Your task to perform on an android device: turn on wifi Image 0: 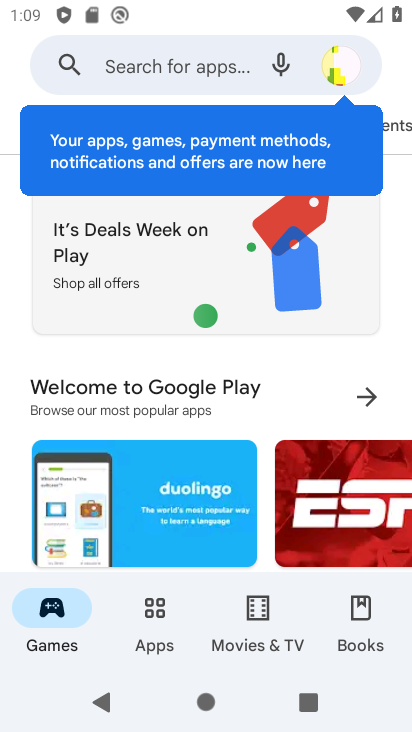
Step 0: press home button
Your task to perform on an android device: turn on wifi Image 1: 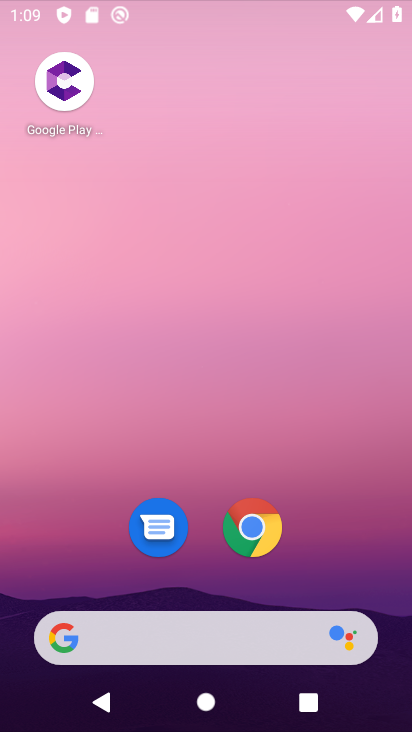
Step 1: drag from (137, 588) to (331, 20)
Your task to perform on an android device: turn on wifi Image 2: 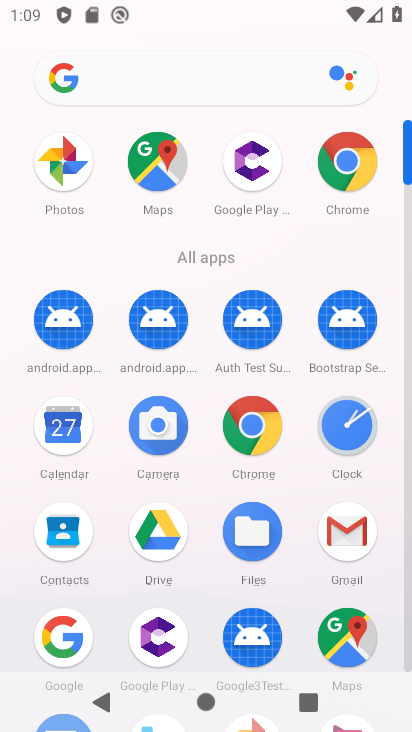
Step 2: drag from (172, 544) to (279, 210)
Your task to perform on an android device: turn on wifi Image 3: 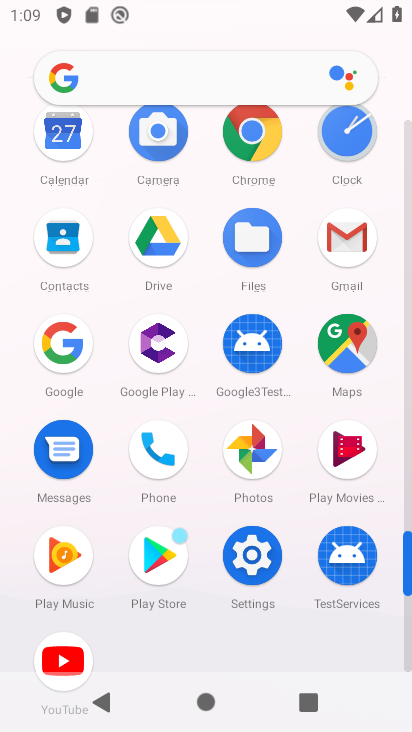
Step 3: click (258, 561)
Your task to perform on an android device: turn on wifi Image 4: 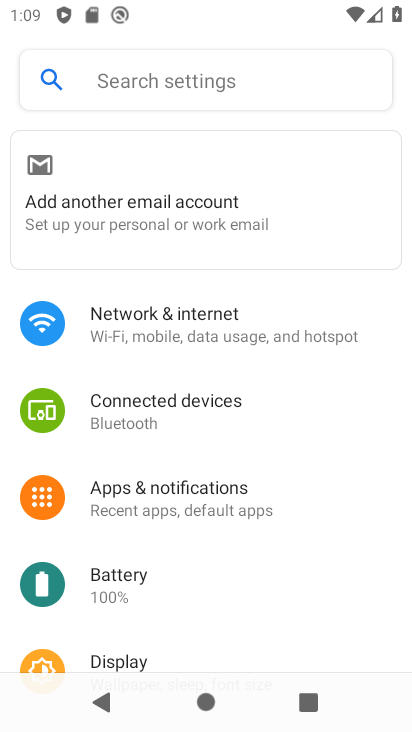
Step 4: click (183, 323)
Your task to perform on an android device: turn on wifi Image 5: 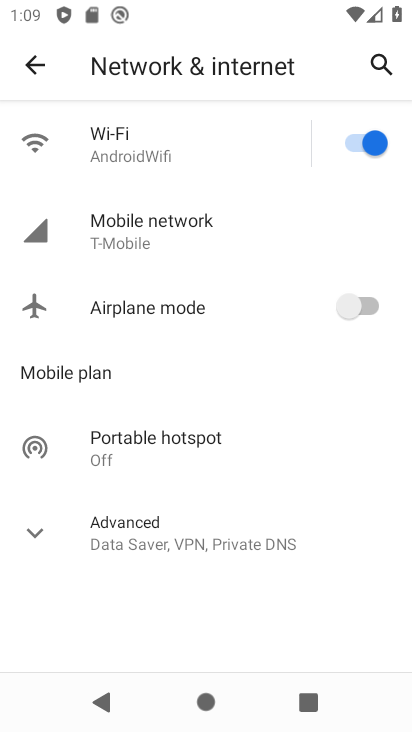
Step 5: task complete